Your task to perform on an android device: Search for vegetarian restaurants on Maps Image 0: 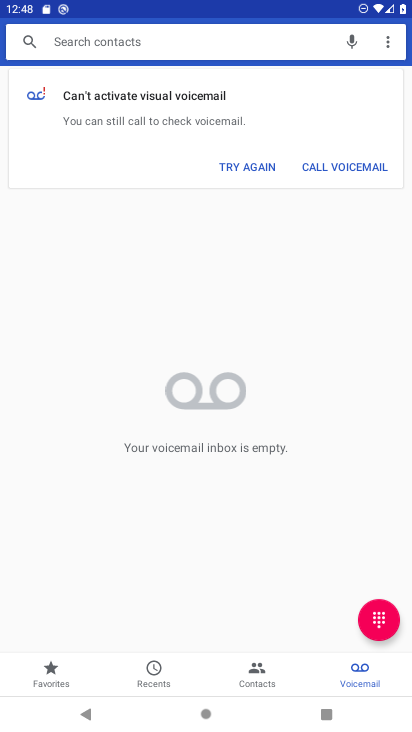
Step 0: press home button
Your task to perform on an android device: Search for vegetarian restaurants on Maps Image 1: 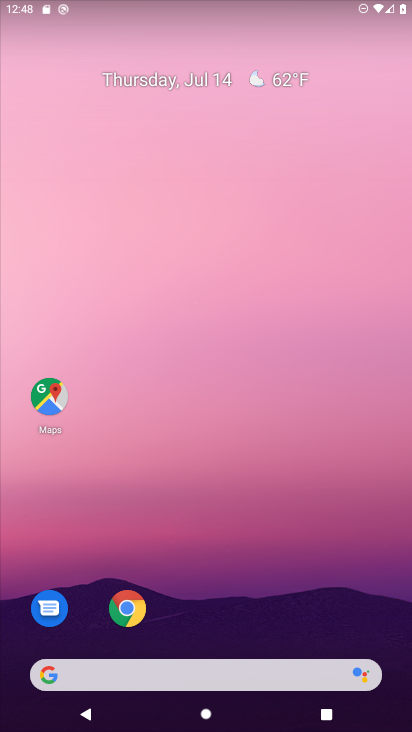
Step 1: drag from (255, 658) to (245, 117)
Your task to perform on an android device: Search for vegetarian restaurants on Maps Image 2: 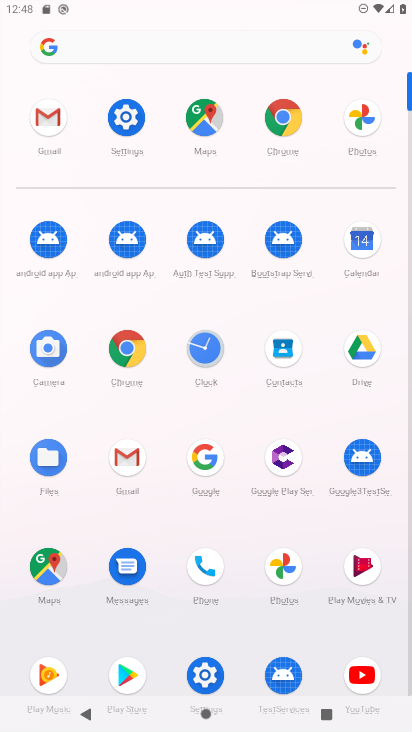
Step 2: click (48, 565)
Your task to perform on an android device: Search for vegetarian restaurants on Maps Image 3: 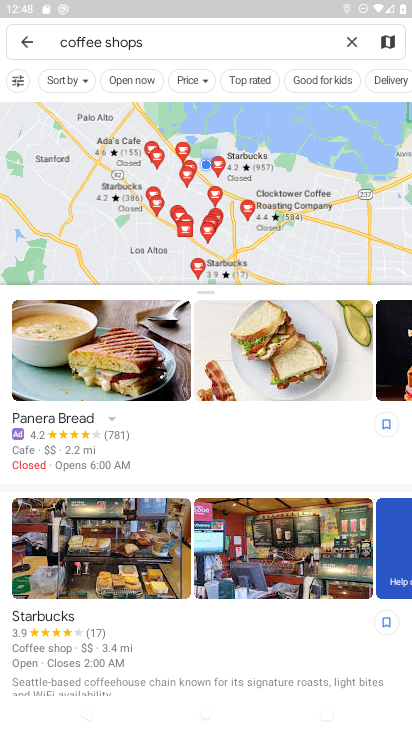
Step 3: click (350, 40)
Your task to perform on an android device: Search for vegetarian restaurants on Maps Image 4: 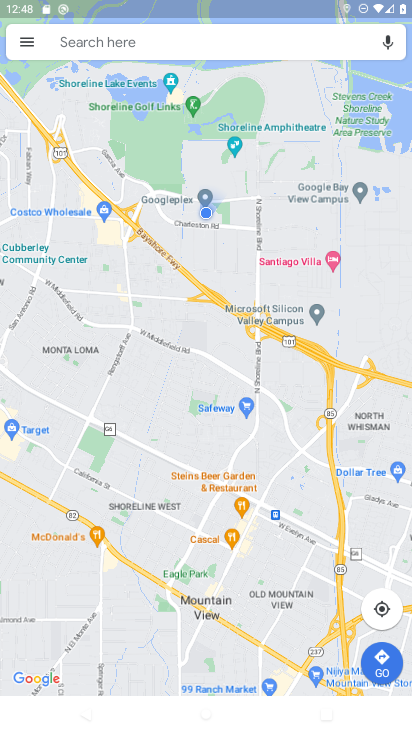
Step 4: click (104, 43)
Your task to perform on an android device: Search for vegetarian restaurants on Maps Image 5: 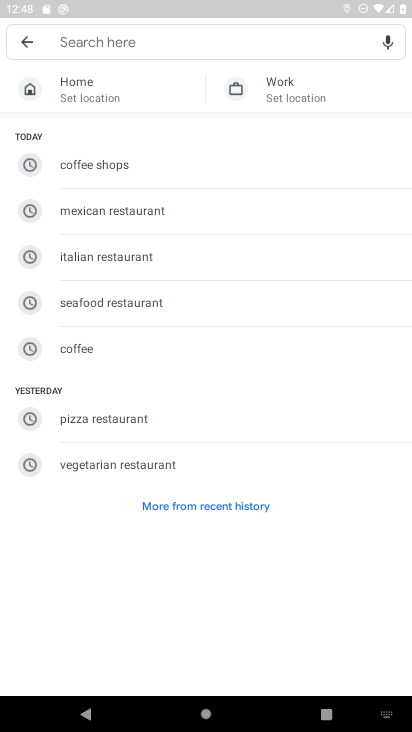
Step 5: type "vegetarian restaurants"
Your task to perform on an android device: Search for vegetarian restaurants on Maps Image 6: 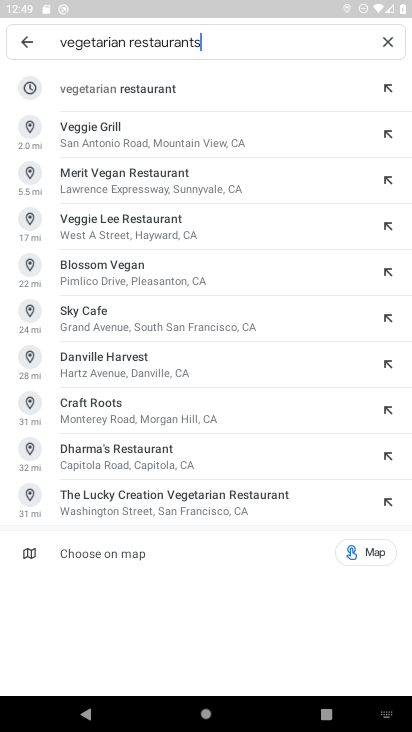
Step 6: click (127, 87)
Your task to perform on an android device: Search for vegetarian restaurants on Maps Image 7: 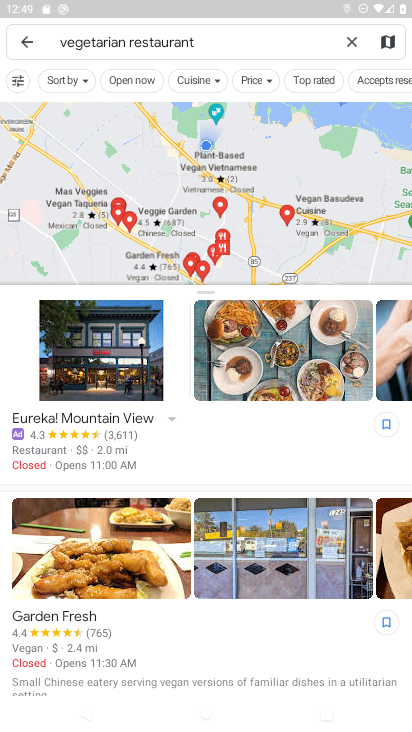
Step 7: task complete